Your task to perform on an android device: What's the weather going to be tomorrow? Image 0: 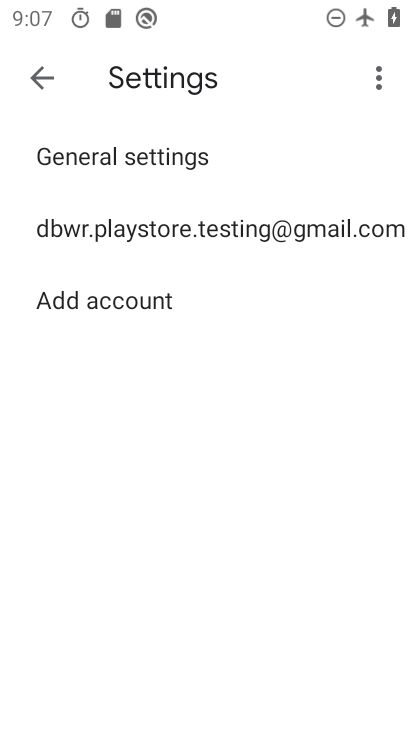
Step 0: press home button
Your task to perform on an android device: What's the weather going to be tomorrow? Image 1: 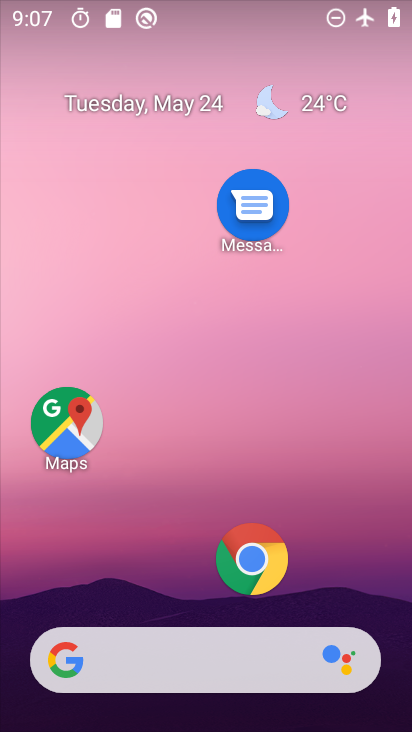
Step 1: drag from (191, 583) to (174, 230)
Your task to perform on an android device: What's the weather going to be tomorrow? Image 2: 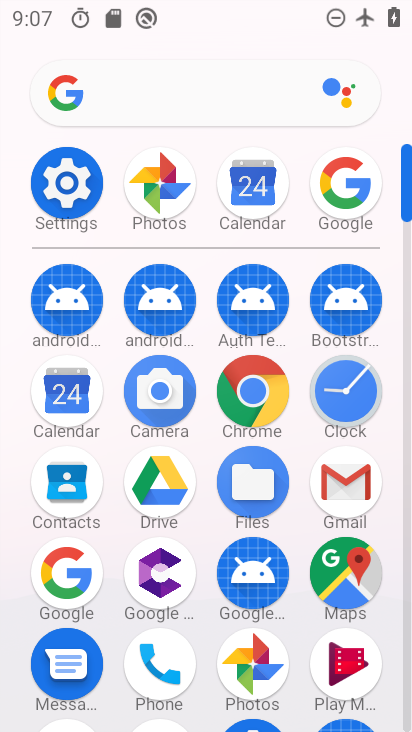
Step 2: click (361, 184)
Your task to perform on an android device: What's the weather going to be tomorrow? Image 3: 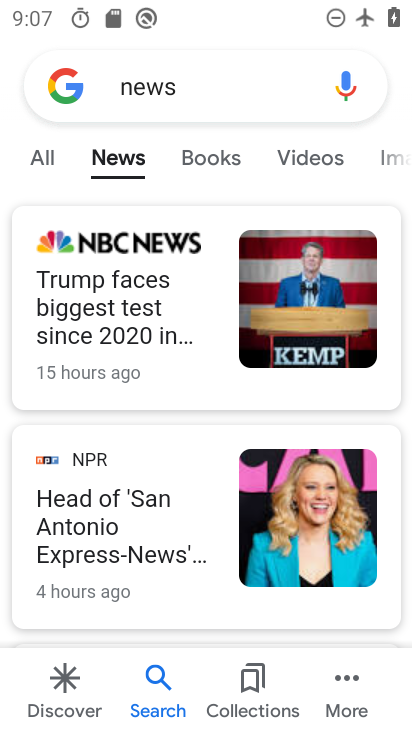
Step 3: click (207, 81)
Your task to perform on an android device: What's the weather going to be tomorrow? Image 4: 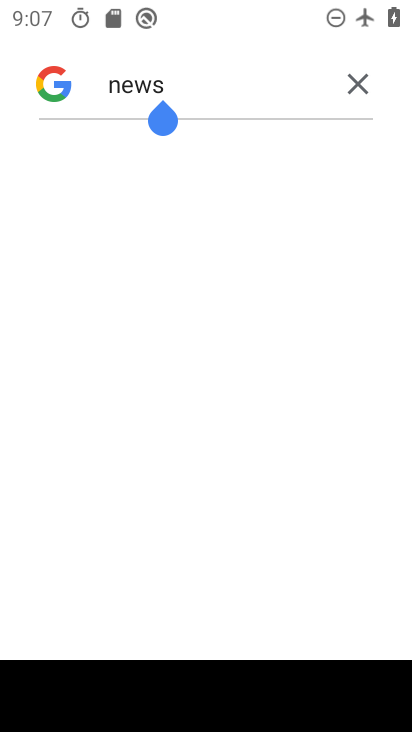
Step 4: click (355, 91)
Your task to perform on an android device: What's the weather going to be tomorrow? Image 5: 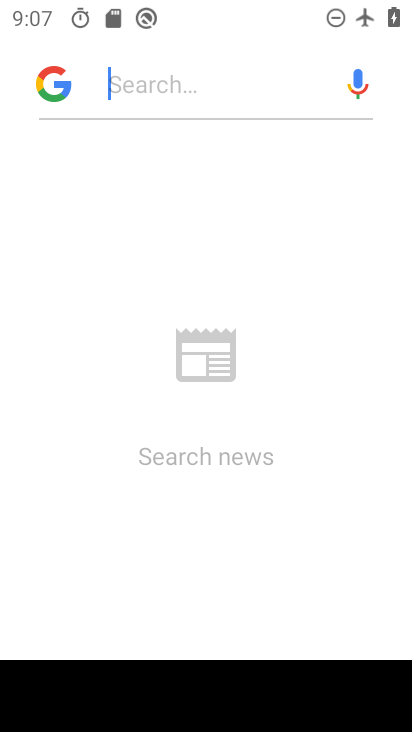
Step 5: click (169, 91)
Your task to perform on an android device: What's the weather going to be tomorrow? Image 6: 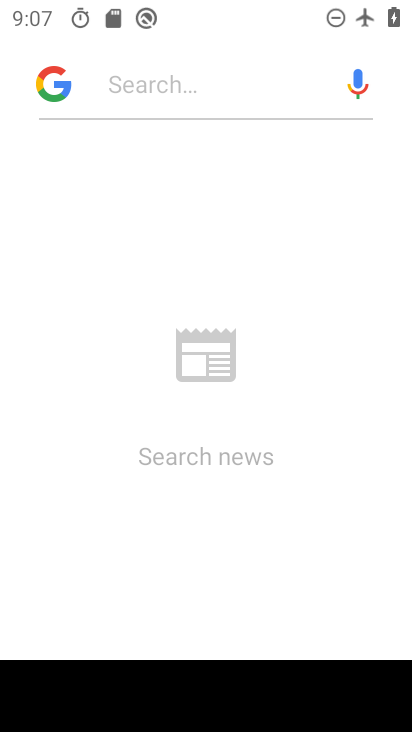
Step 6: type "weather"
Your task to perform on an android device: What's the weather going to be tomorrow? Image 7: 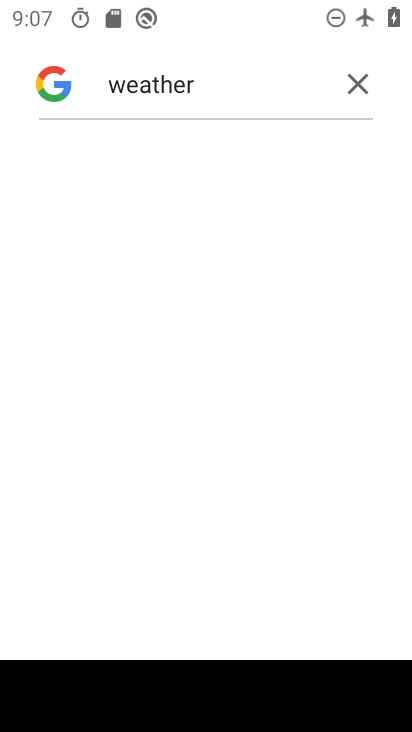
Step 7: task complete